Your task to perform on an android device: Toggle the flashlight Image 0: 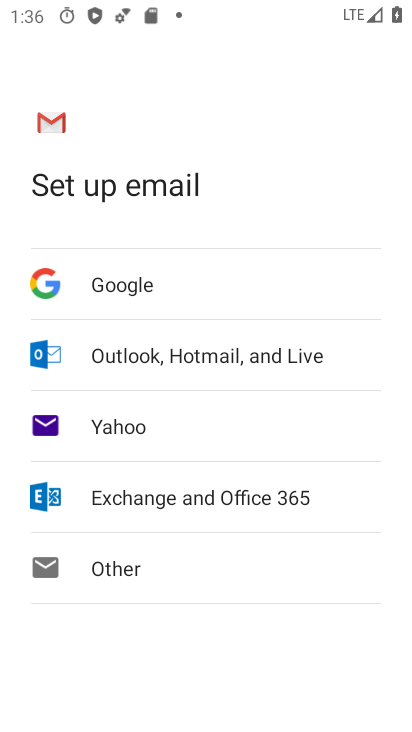
Step 0: press home button
Your task to perform on an android device: Toggle the flashlight Image 1: 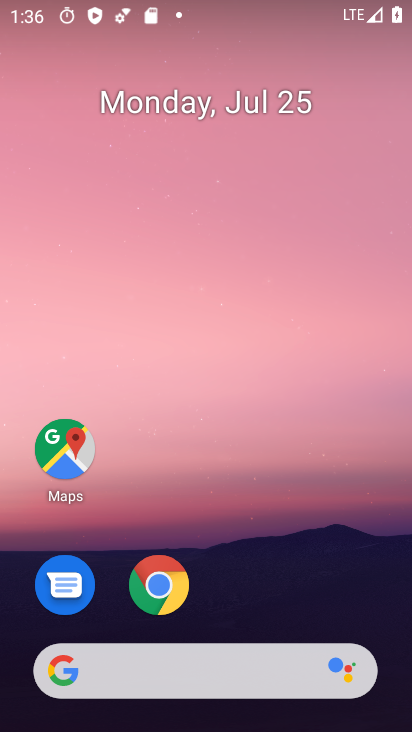
Step 1: task complete